Your task to perform on an android device: toggle data saver in the chrome app Image 0: 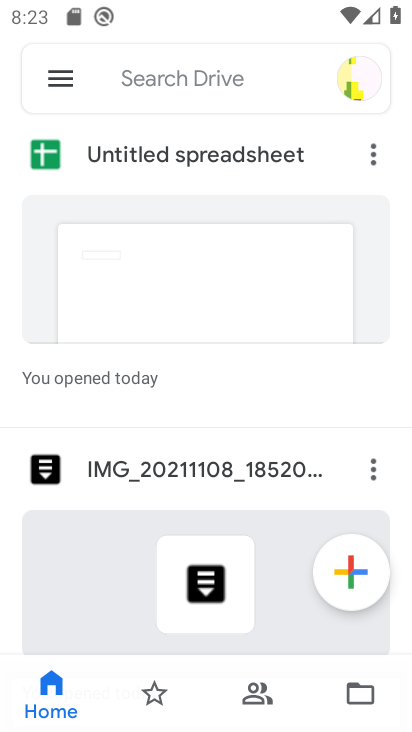
Step 0: press home button
Your task to perform on an android device: toggle data saver in the chrome app Image 1: 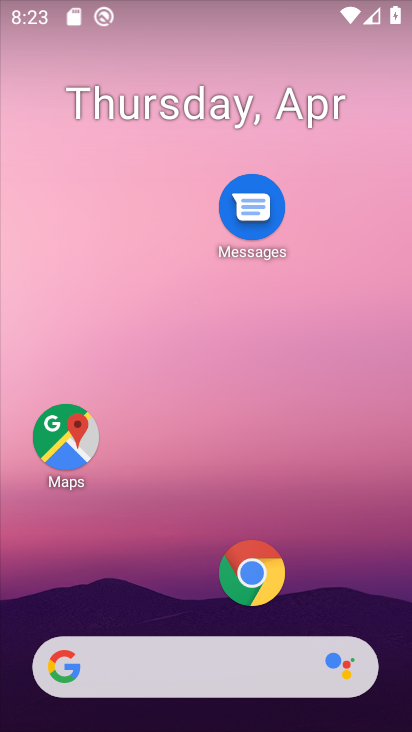
Step 1: click (246, 569)
Your task to perform on an android device: toggle data saver in the chrome app Image 2: 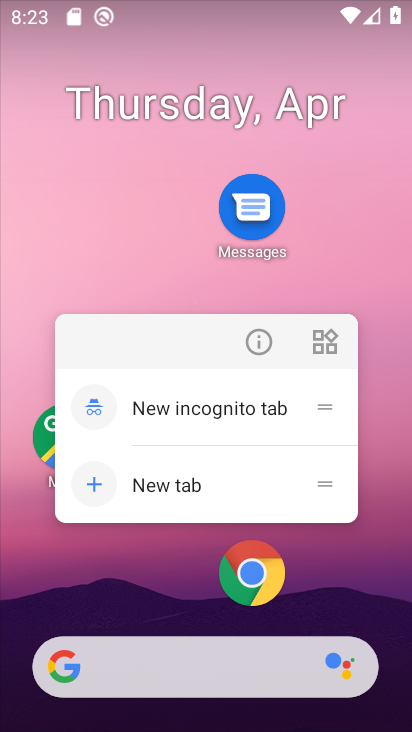
Step 2: click (250, 567)
Your task to perform on an android device: toggle data saver in the chrome app Image 3: 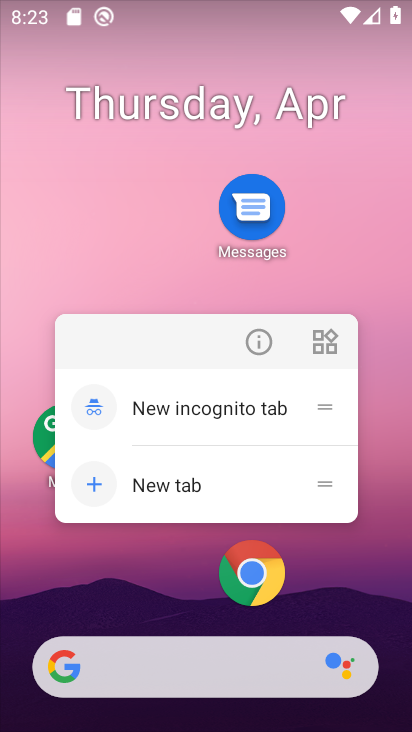
Step 3: click (249, 568)
Your task to perform on an android device: toggle data saver in the chrome app Image 4: 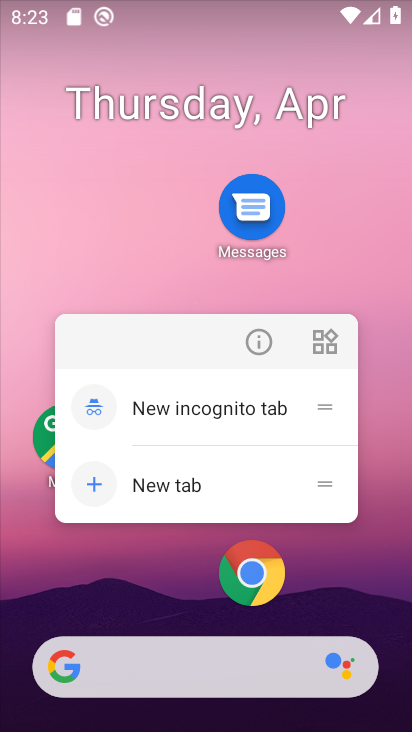
Step 4: click (297, 603)
Your task to perform on an android device: toggle data saver in the chrome app Image 5: 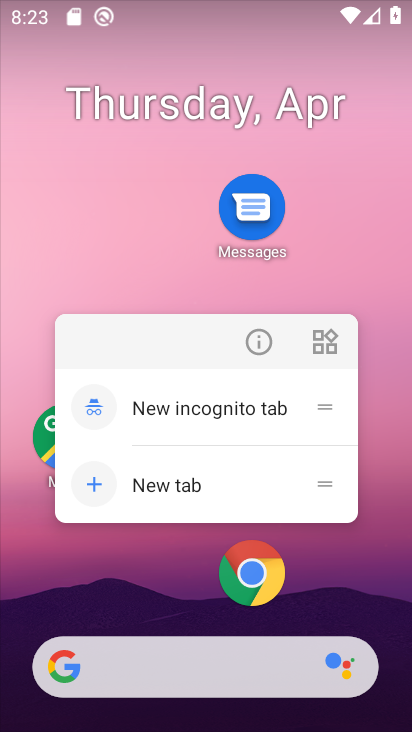
Step 5: drag from (326, 615) to (347, 124)
Your task to perform on an android device: toggle data saver in the chrome app Image 6: 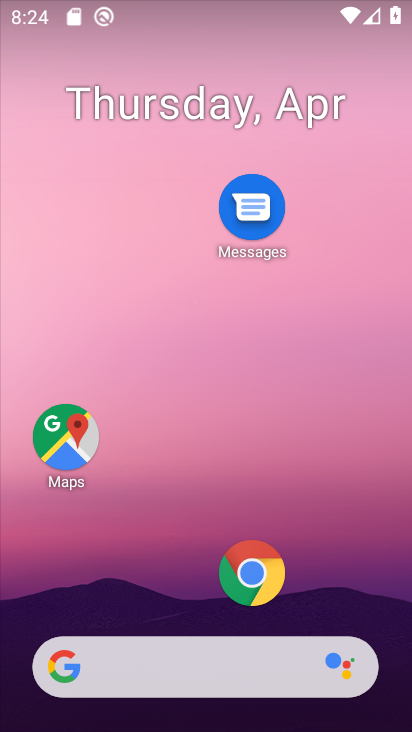
Step 6: drag from (310, 614) to (303, 149)
Your task to perform on an android device: toggle data saver in the chrome app Image 7: 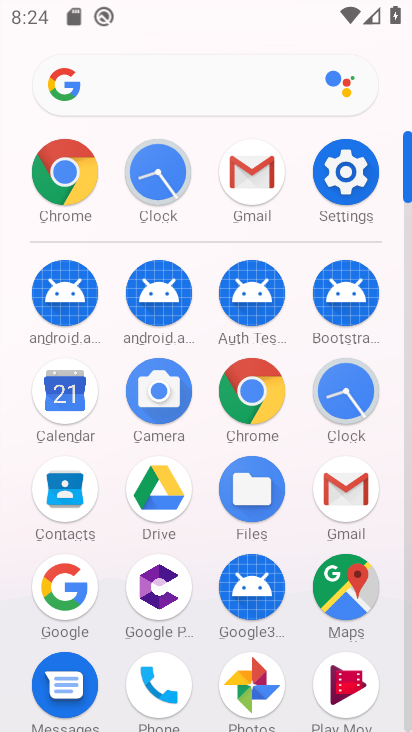
Step 7: click (249, 382)
Your task to perform on an android device: toggle data saver in the chrome app Image 8: 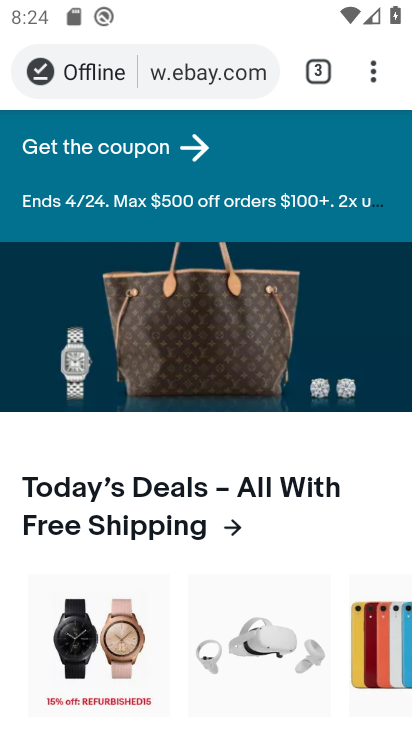
Step 8: click (367, 67)
Your task to perform on an android device: toggle data saver in the chrome app Image 9: 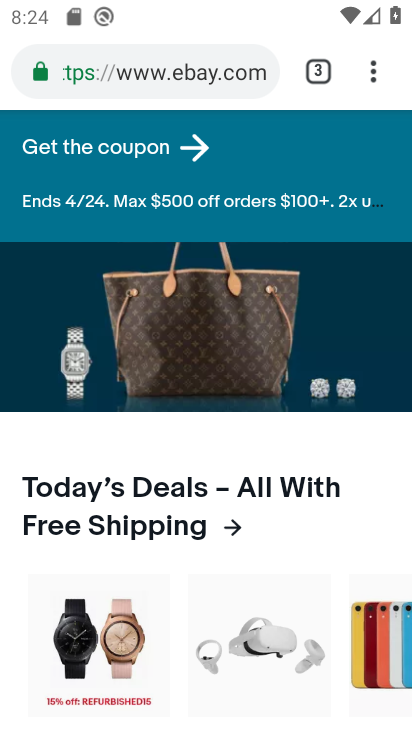
Step 9: click (373, 68)
Your task to perform on an android device: toggle data saver in the chrome app Image 10: 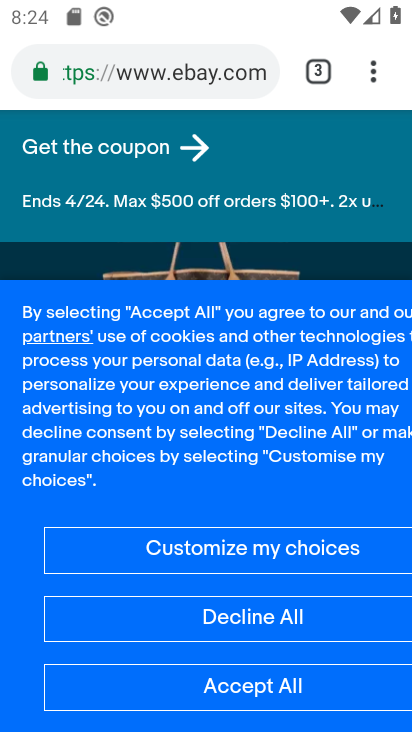
Step 10: click (375, 65)
Your task to perform on an android device: toggle data saver in the chrome app Image 11: 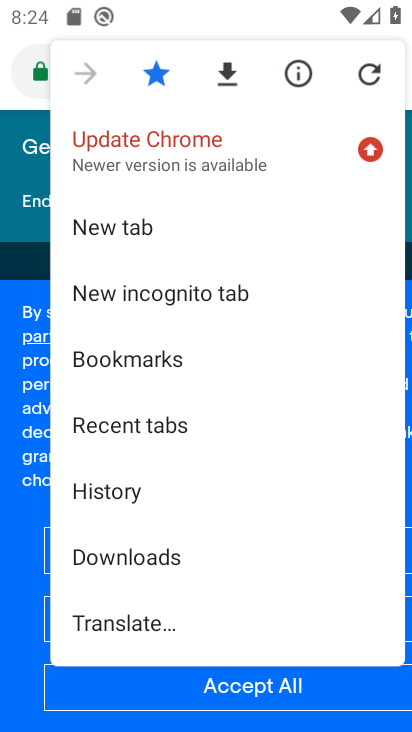
Step 11: drag from (180, 601) to (208, 171)
Your task to perform on an android device: toggle data saver in the chrome app Image 12: 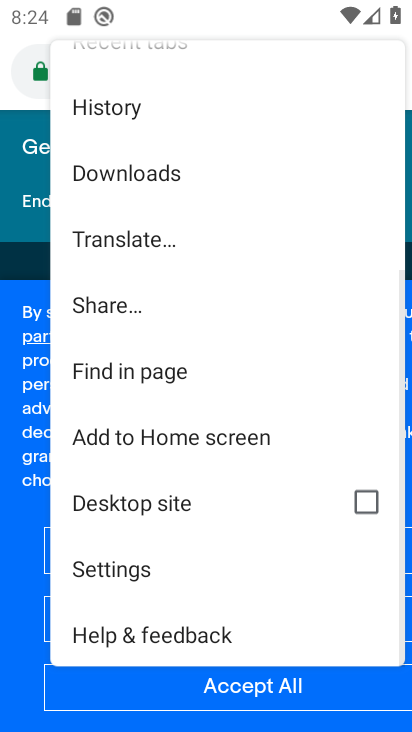
Step 12: click (162, 568)
Your task to perform on an android device: toggle data saver in the chrome app Image 13: 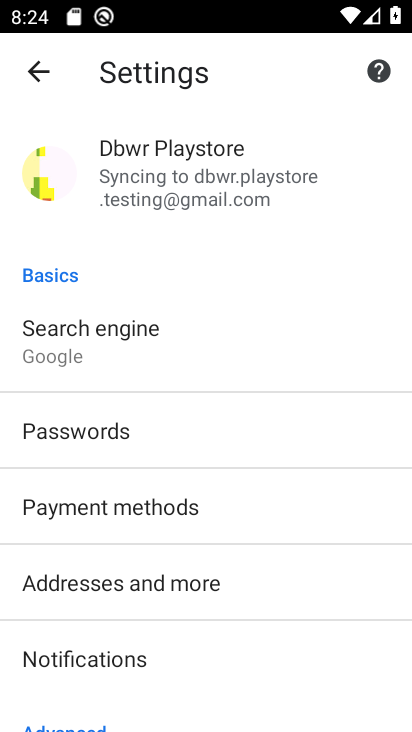
Step 13: drag from (235, 643) to (234, 175)
Your task to perform on an android device: toggle data saver in the chrome app Image 14: 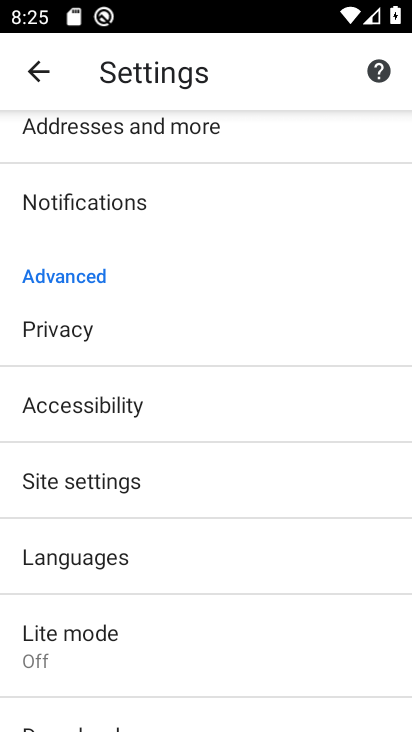
Step 14: click (120, 662)
Your task to perform on an android device: toggle data saver in the chrome app Image 15: 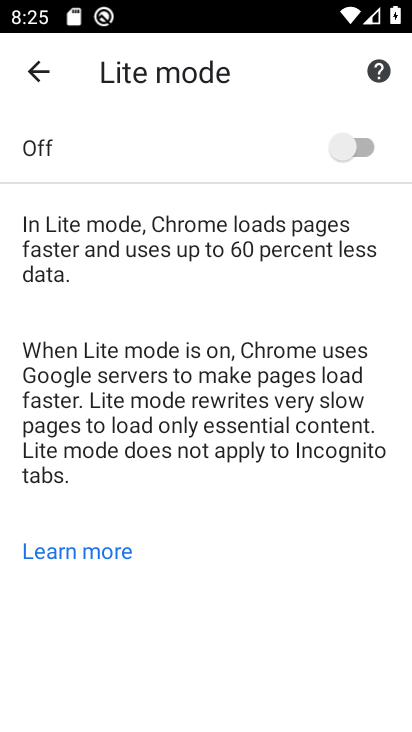
Step 15: click (356, 147)
Your task to perform on an android device: toggle data saver in the chrome app Image 16: 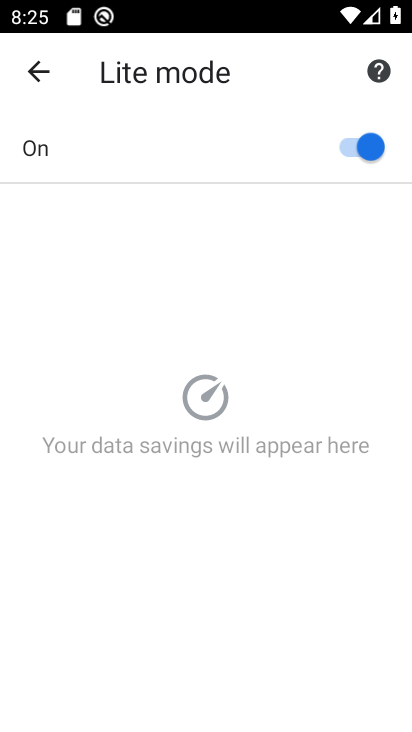
Step 16: task complete